Your task to perform on an android device: stop showing notifications on the lock screen Image 0: 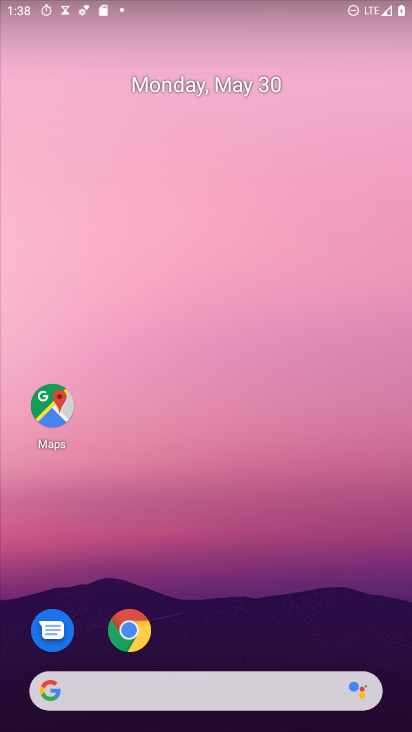
Step 0: press home button
Your task to perform on an android device: stop showing notifications on the lock screen Image 1: 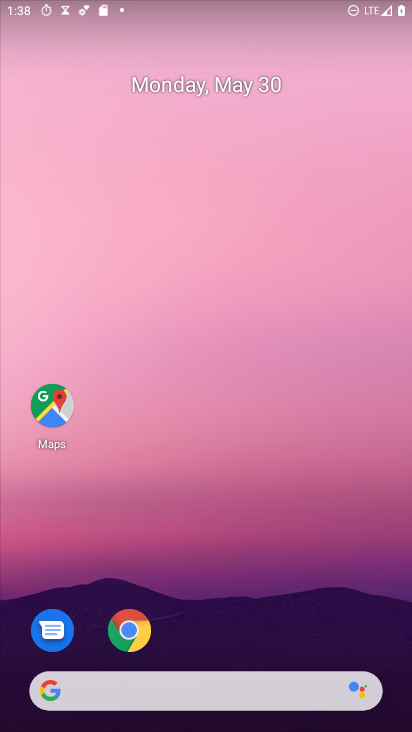
Step 1: drag from (228, 705) to (215, 196)
Your task to perform on an android device: stop showing notifications on the lock screen Image 2: 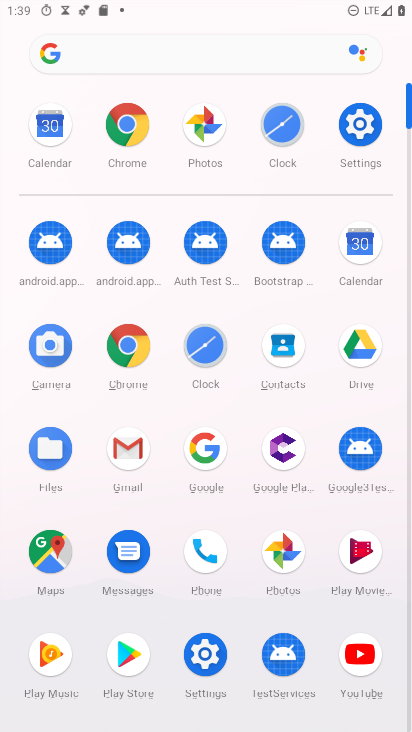
Step 2: click (357, 125)
Your task to perform on an android device: stop showing notifications on the lock screen Image 3: 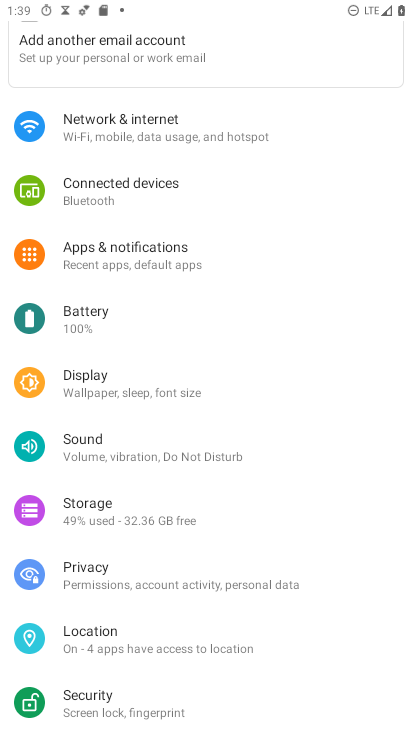
Step 3: drag from (164, 107) to (191, 210)
Your task to perform on an android device: stop showing notifications on the lock screen Image 4: 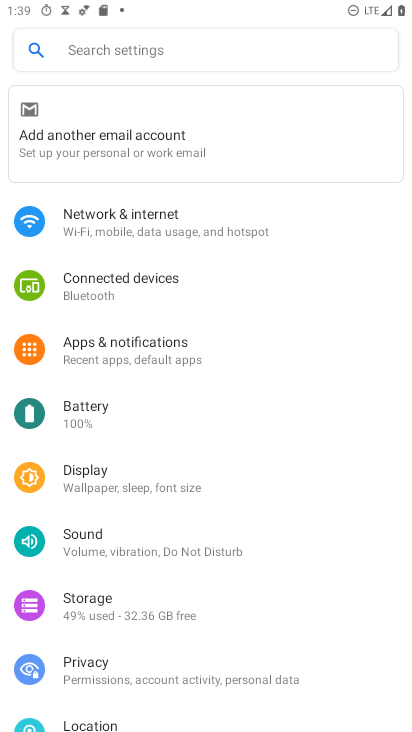
Step 4: click (163, 53)
Your task to perform on an android device: stop showing notifications on the lock screen Image 5: 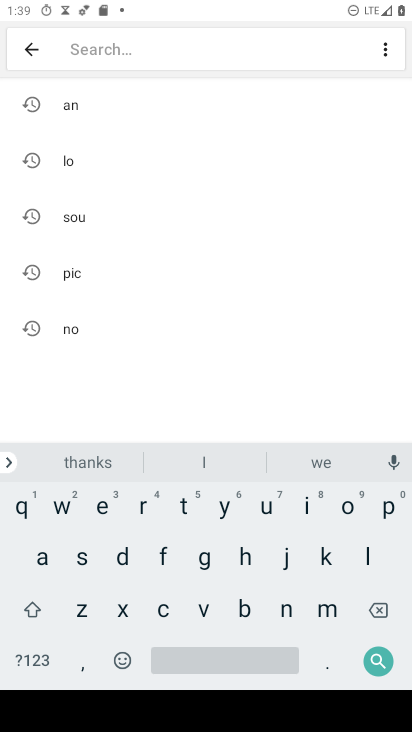
Step 5: click (89, 329)
Your task to perform on an android device: stop showing notifications on the lock screen Image 6: 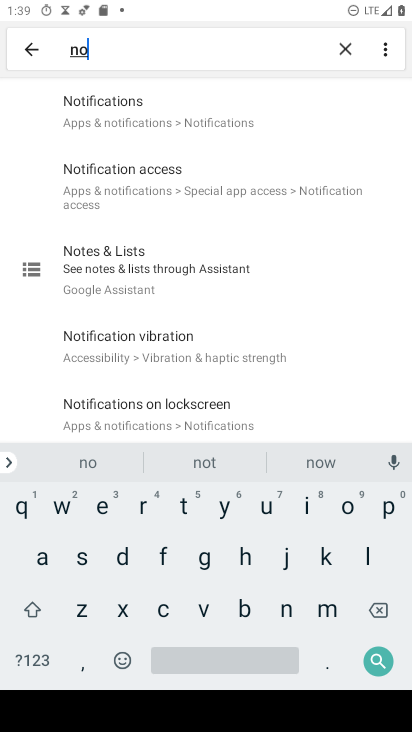
Step 6: click (126, 123)
Your task to perform on an android device: stop showing notifications on the lock screen Image 7: 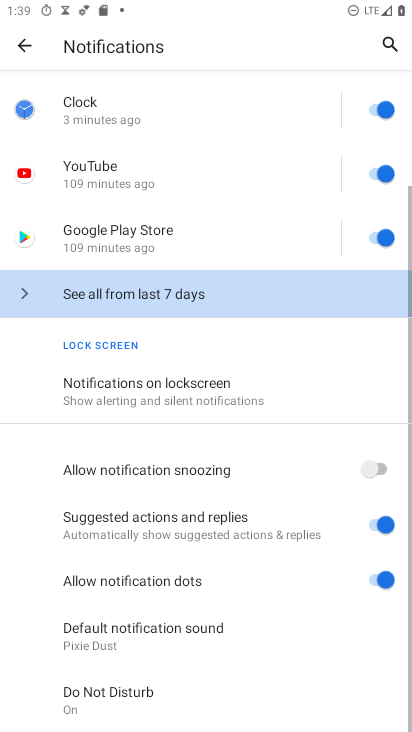
Step 7: click (161, 368)
Your task to perform on an android device: stop showing notifications on the lock screen Image 8: 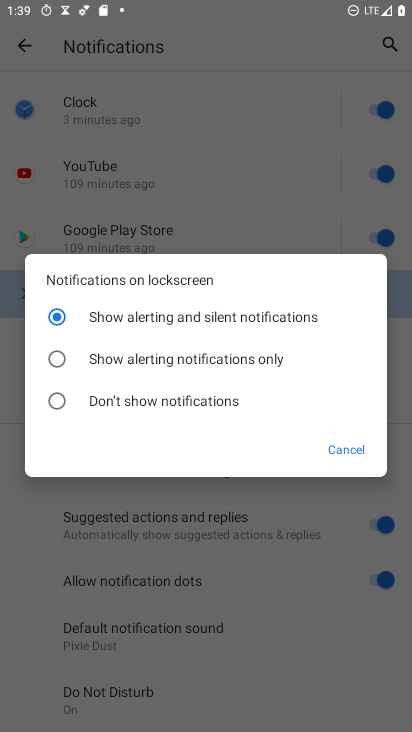
Step 8: task complete